Your task to perform on an android device: Open Youtube and go to the subscriptions tab Image 0: 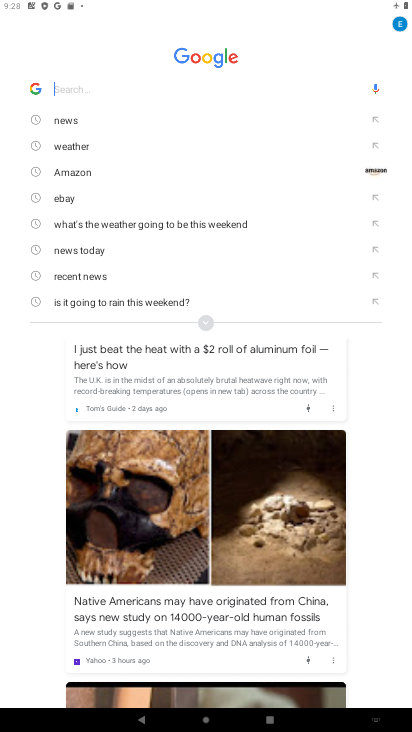
Step 0: press home button
Your task to perform on an android device: Open Youtube and go to the subscriptions tab Image 1: 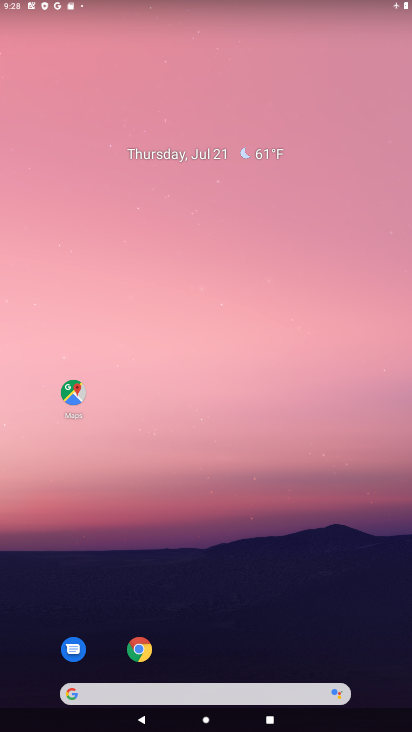
Step 1: drag from (218, 677) to (339, 186)
Your task to perform on an android device: Open Youtube and go to the subscriptions tab Image 2: 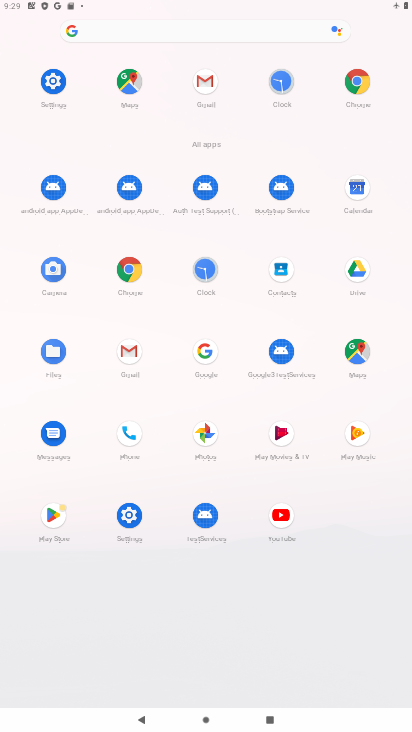
Step 2: click (282, 516)
Your task to perform on an android device: Open Youtube and go to the subscriptions tab Image 3: 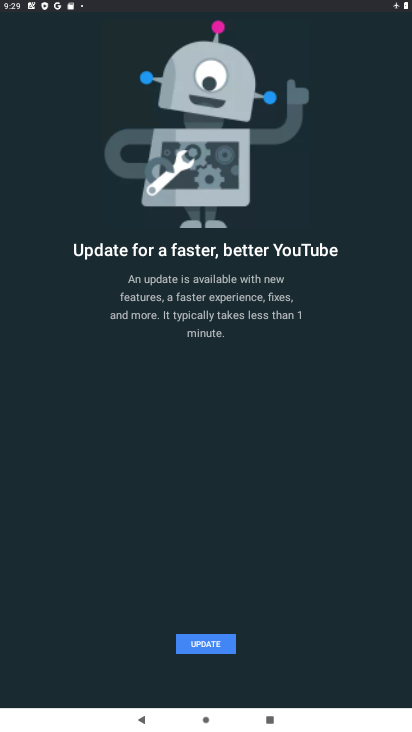
Step 3: click (203, 643)
Your task to perform on an android device: Open Youtube and go to the subscriptions tab Image 4: 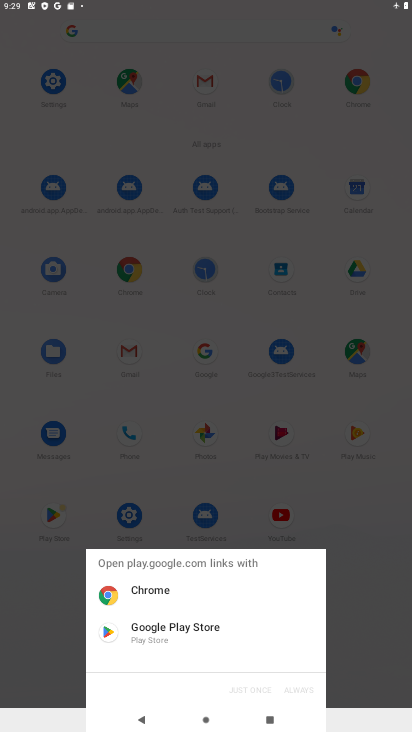
Step 4: click (182, 601)
Your task to perform on an android device: Open Youtube and go to the subscriptions tab Image 5: 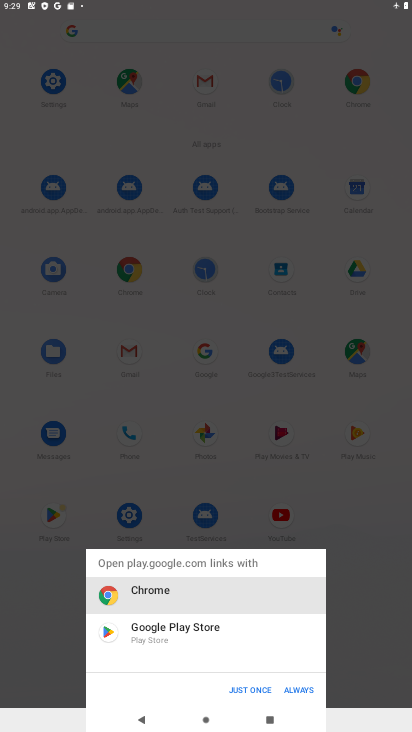
Step 5: click (171, 618)
Your task to perform on an android device: Open Youtube and go to the subscriptions tab Image 6: 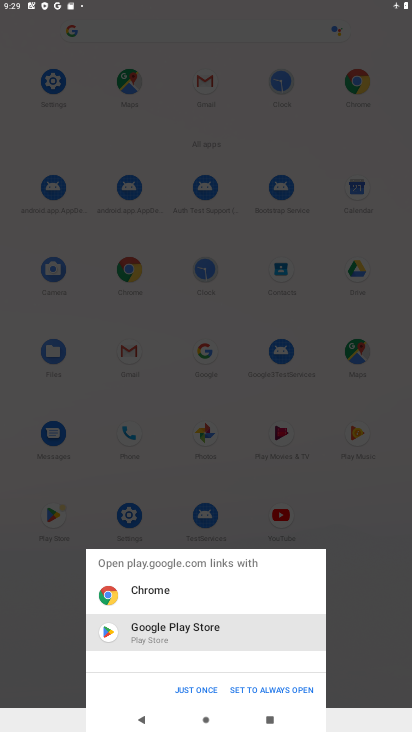
Step 6: click (190, 692)
Your task to perform on an android device: Open Youtube and go to the subscriptions tab Image 7: 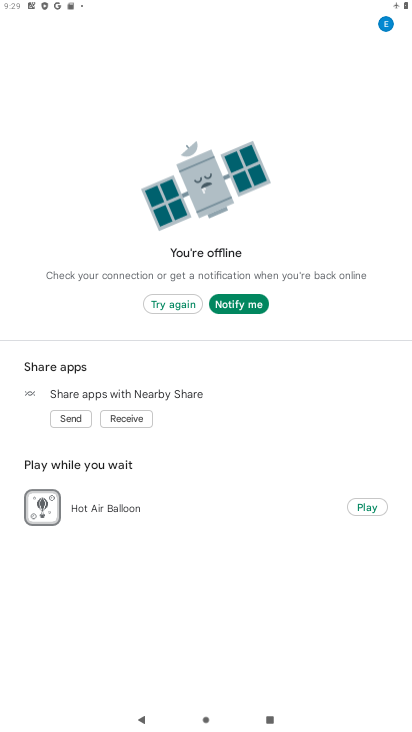
Step 7: click (174, 306)
Your task to perform on an android device: Open Youtube and go to the subscriptions tab Image 8: 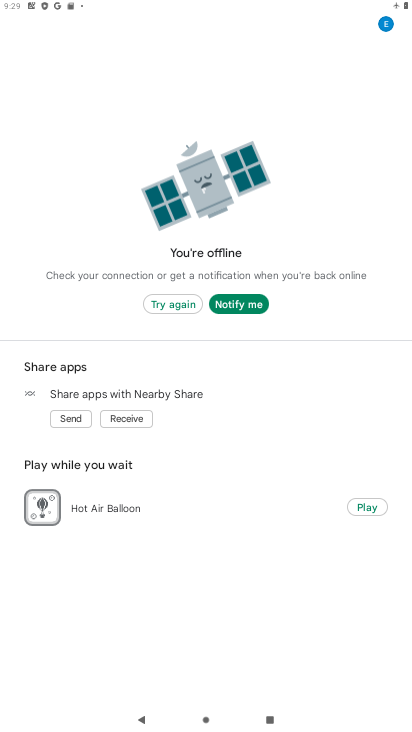
Step 8: click (178, 301)
Your task to perform on an android device: Open Youtube and go to the subscriptions tab Image 9: 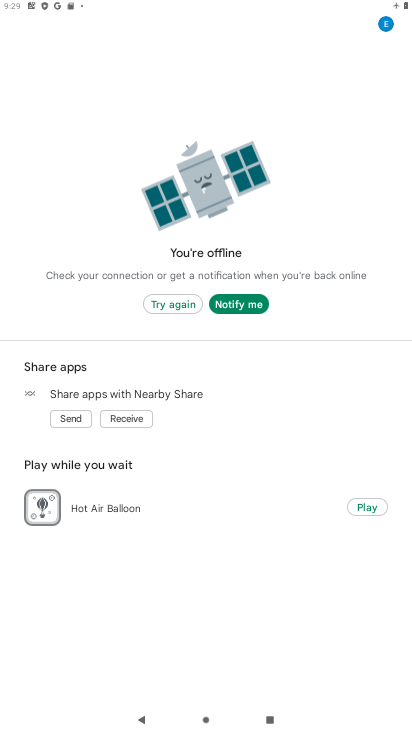
Step 9: click (178, 301)
Your task to perform on an android device: Open Youtube and go to the subscriptions tab Image 10: 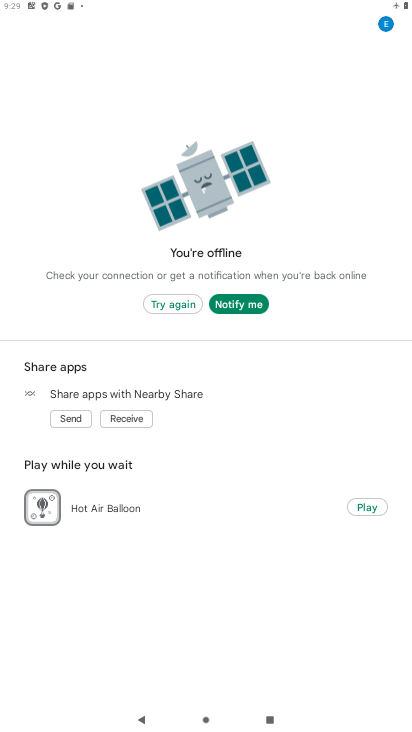
Step 10: click (178, 301)
Your task to perform on an android device: Open Youtube and go to the subscriptions tab Image 11: 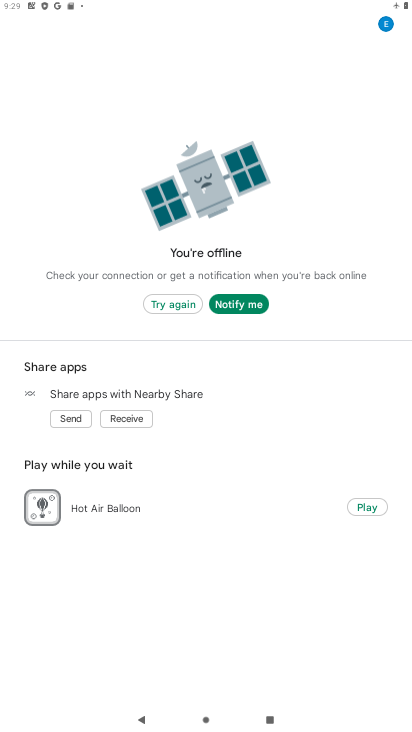
Step 11: task complete